Your task to perform on an android device: search for starred emails in the gmail app Image 0: 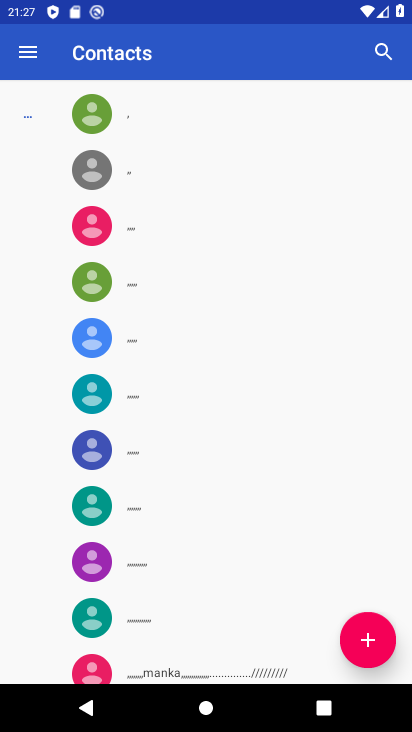
Step 0: press home button
Your task to perform on an android device: search for starred emails in the gmail app Image 1: 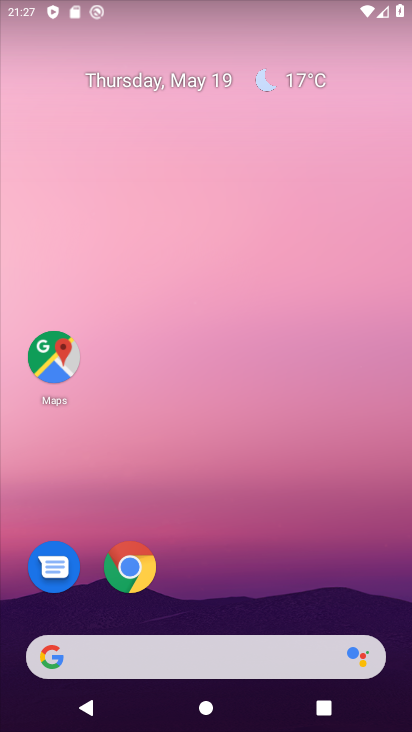
Step 1: drag from (311, 604) to (256, 223)
Your task to perform on an android device: search for starred emails in the gmail app Image 2: 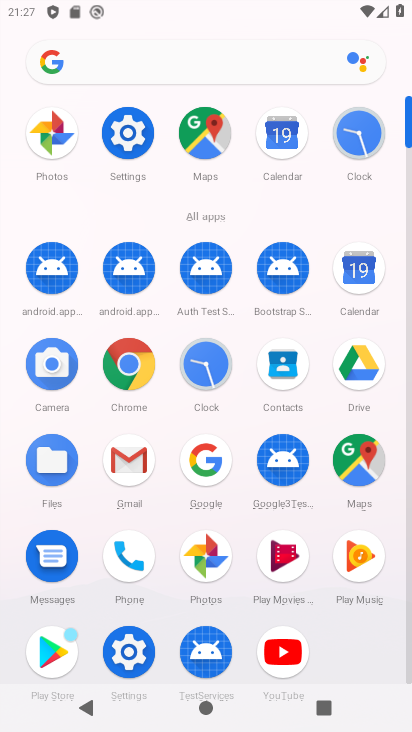
Step 2: click (133, 464)
Your task to perform on an android device: search for starred emails in the gmail app Image 3: 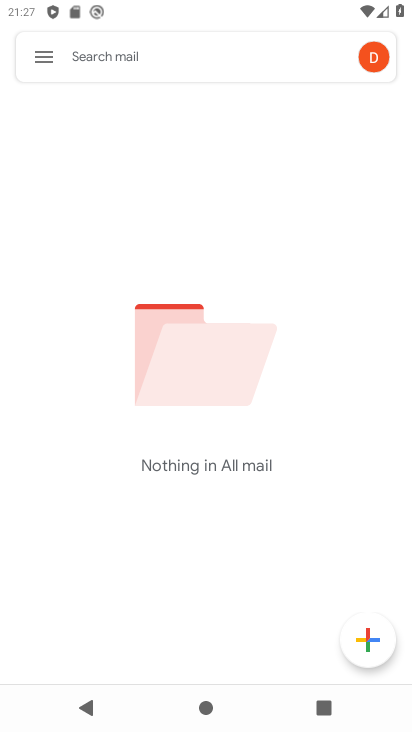
Step 3: click (43, 53)
Your task to perform on an android device: search for starred emails in the gmail app Image 4: 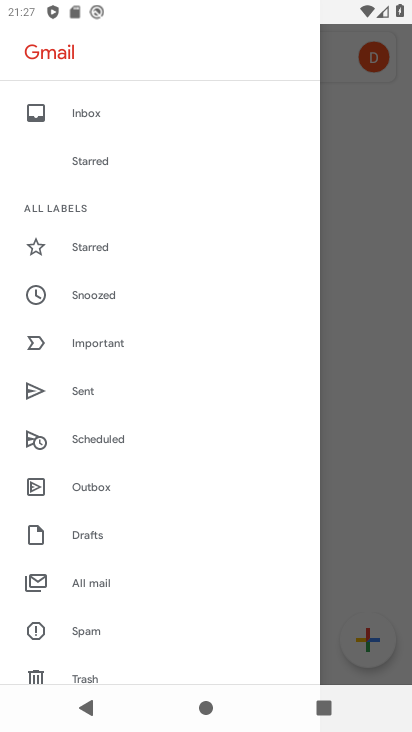
Step 4: click (92, 241)
Your task to perform on an android device: search for starred emails in the gmail app Image 5: 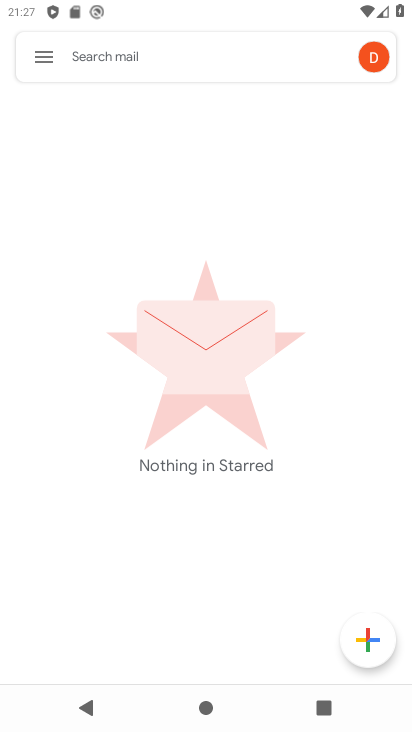
Step 5: task complete